Your task to perform on an android device: Set the phone to "Do not disturb". Image 0: 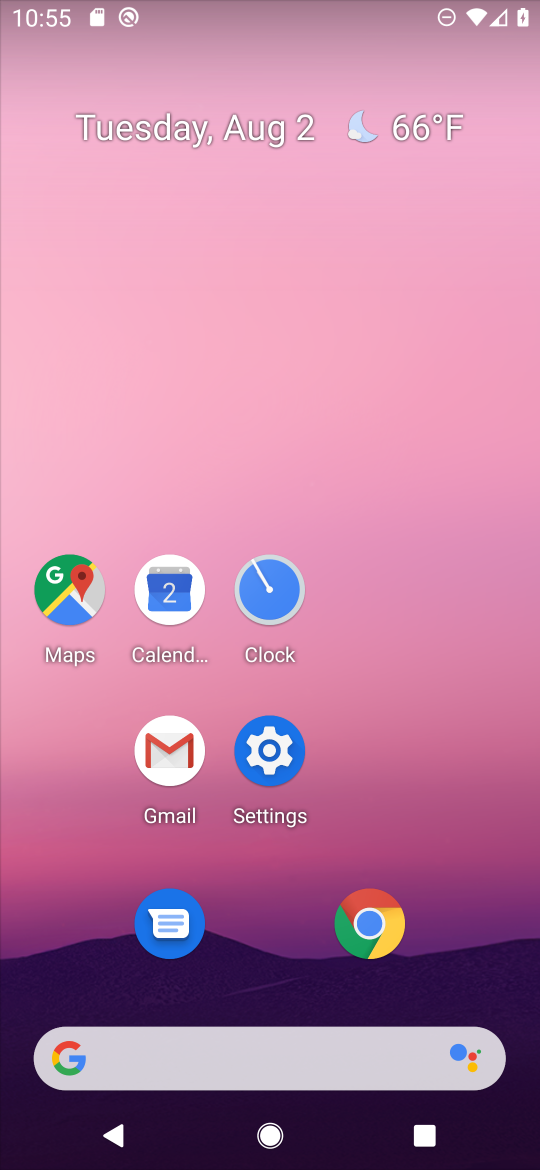
Step 0: click (259, 759)
Your task to perform on an android device: Set the phone to "Do not disturb". Image 1: 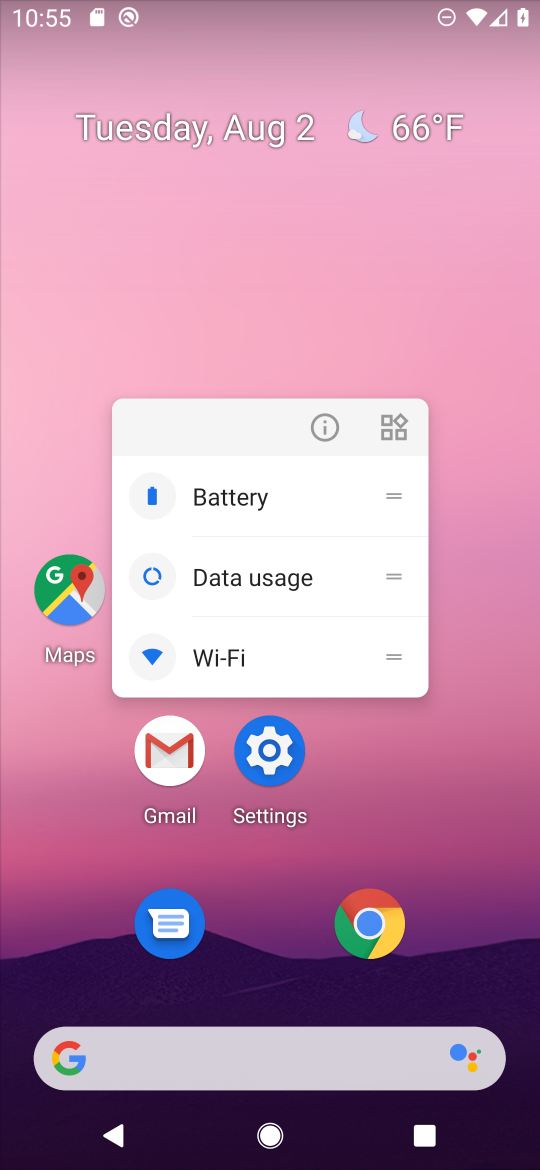
Step 1: click (274, 734)
Your task to perform on an android device: Set the phone to "Do not disturb". Image 2: 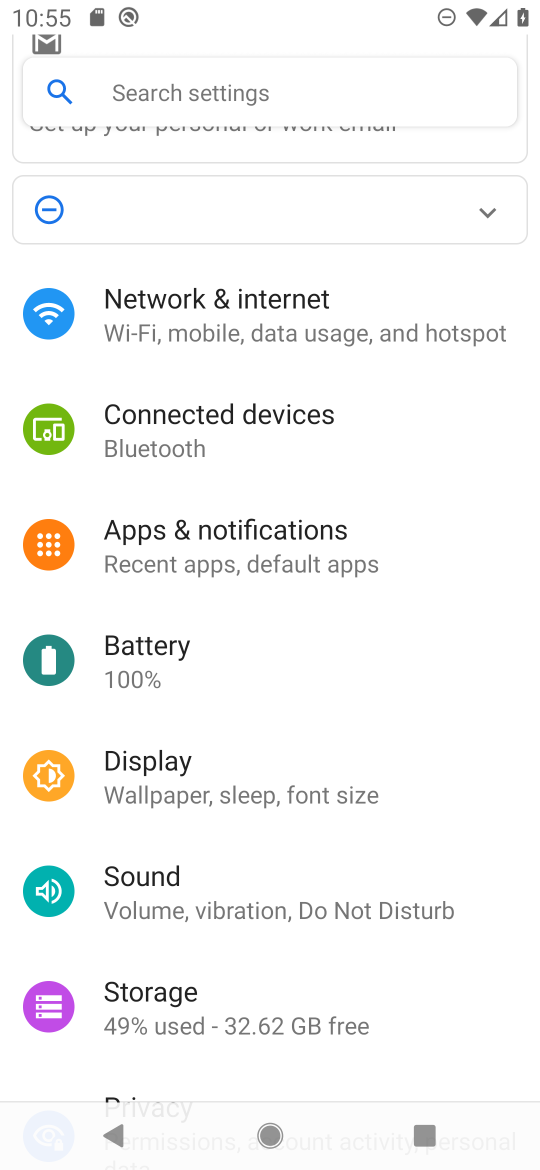
Step 2: click (142, 893)
Your task to perform on an android device: Set the phone to "Do not disturb". Image 3: 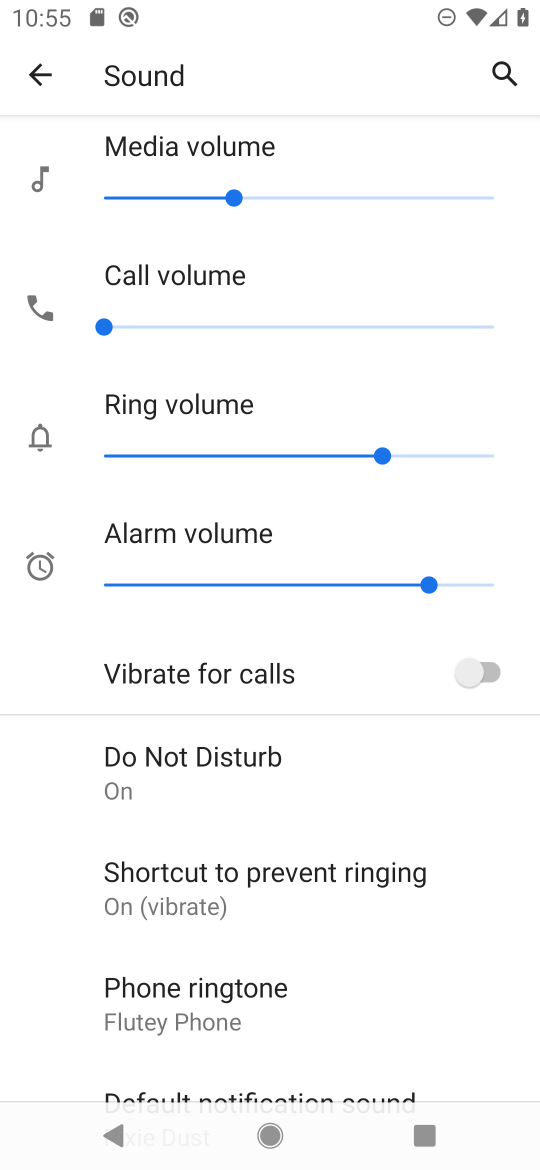
Step 3: click (242, 752)
Your task to perform on an android device: Set the phone to "Do not disturb". Image 4: 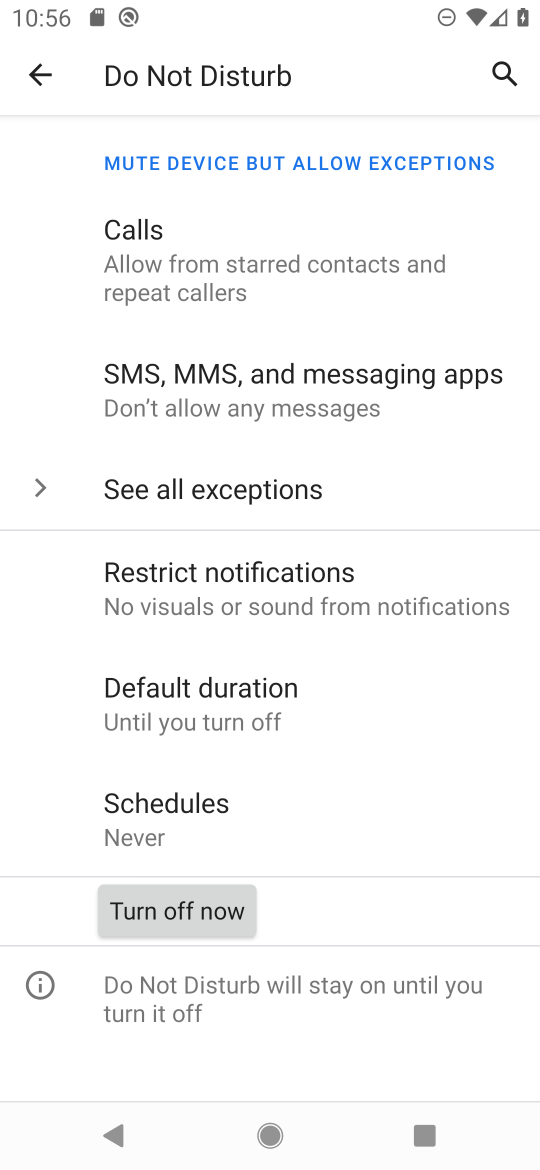
Step 4: task complete